Your task to perform on an android device: check out phone information Image 0: 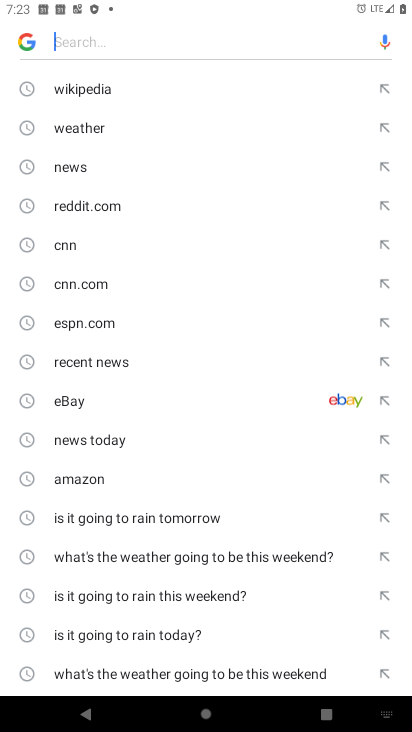
Step 0: press home button
Your task to perform on an android device: check out phone information Image 1: 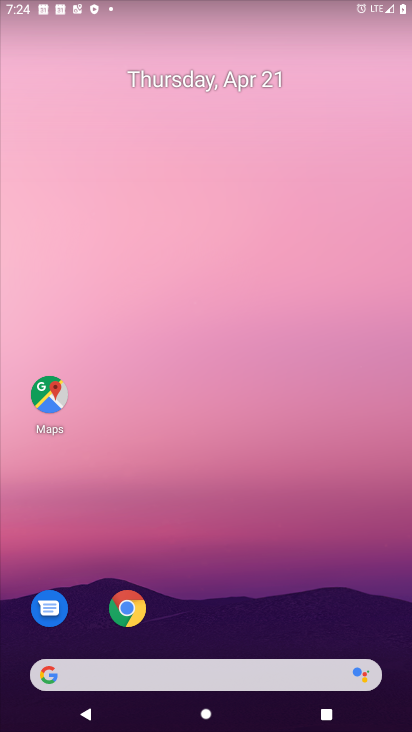
Step 1: drag from (248, 564) to (219, 156)
Your task to perform on an android device: check out phone information Image 2: 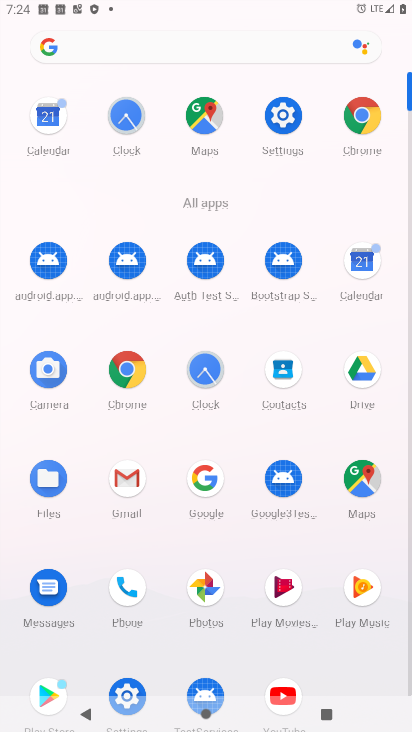
Step 2: click (128, 594)
Your task to perform on an android device: check out phone information Image 3: 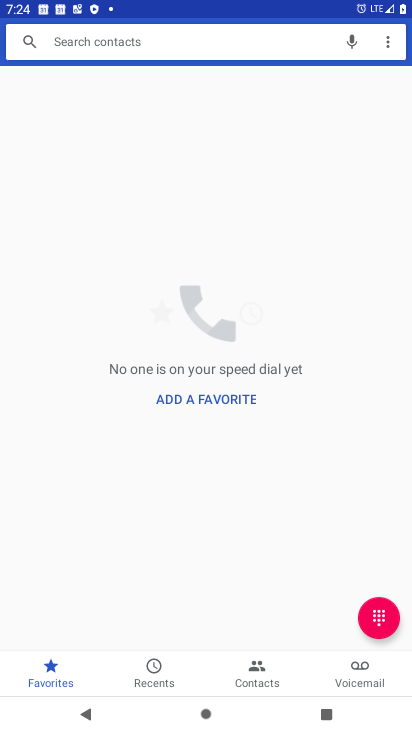
Step 3: drag from (386, 40) to (374, 77)
Your task to perform on an android device: check out phone information Image 4: 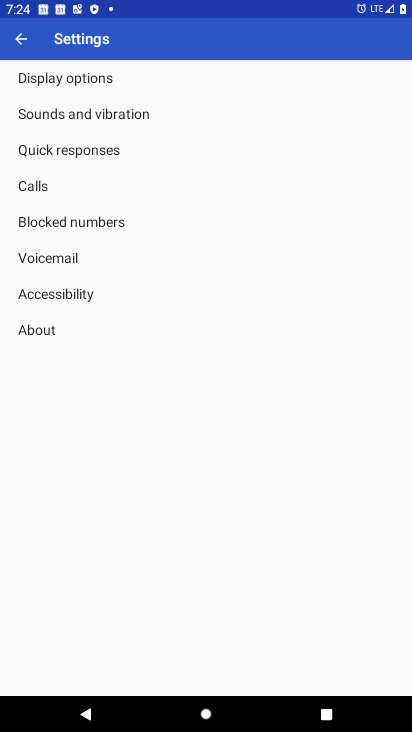
Step 4: click (51, 332)
Your task to perform on an android device: check out phone information Image 5: 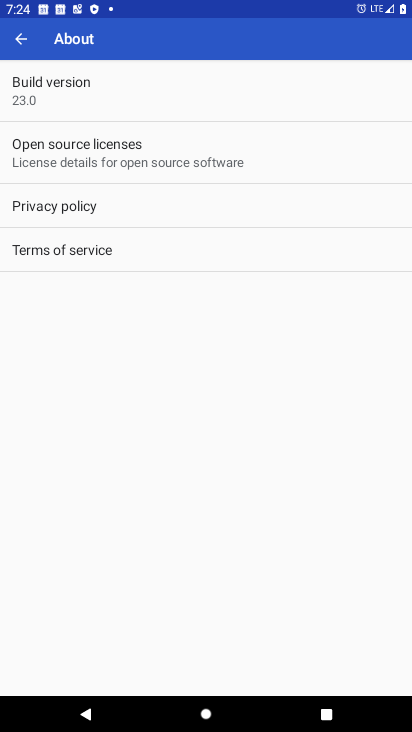
Step 5: task complete